Your task to perform on an android device: Open Chrome and go to settings Image 0: 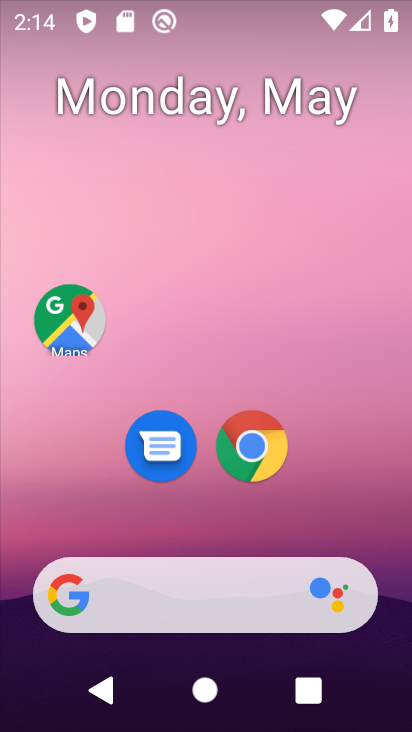
Step 0: drag from (400, 509) to (343, 120)
Your task to perform on an android device: Open Chrome and go to settings Image 1: 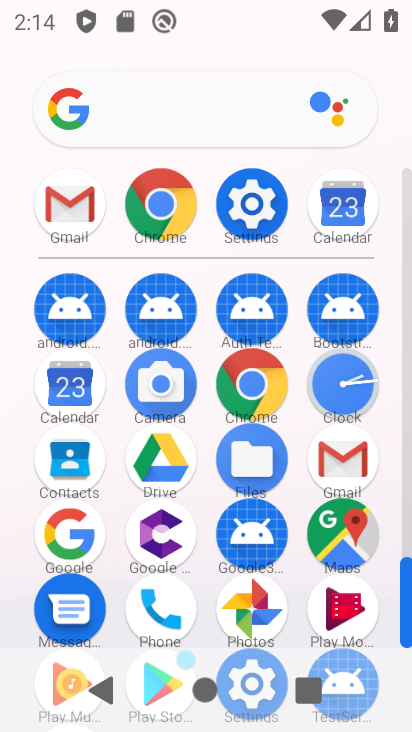
Step 1: click (262, 391)
Your task to perform on an android device: Open Chrome and go to settings Image 2: 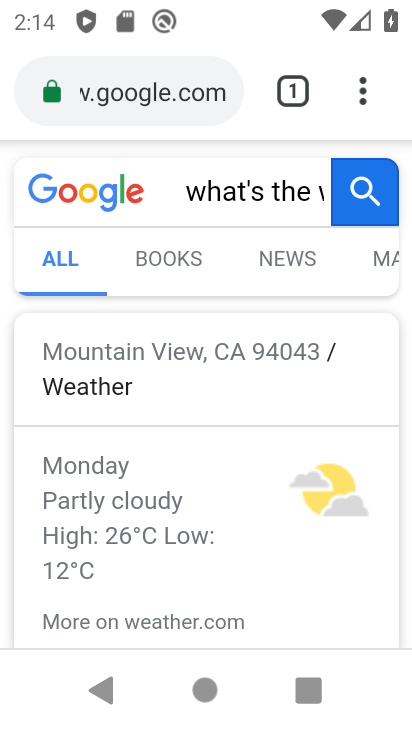
Step 2: task complete